Your task to perform on an android device: change the upload size in google photos Image 0: 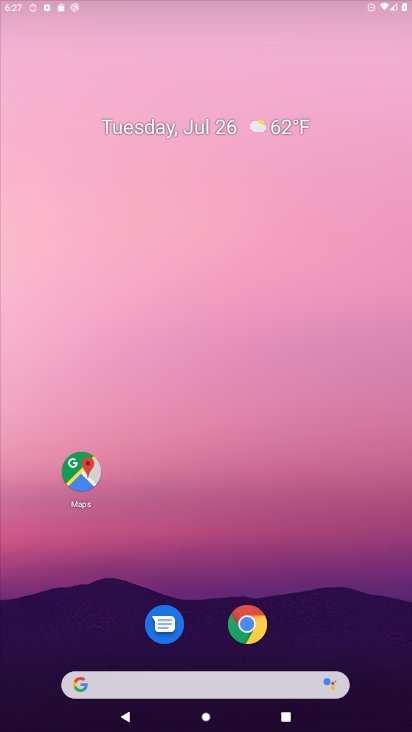
Step 0: press home button
Your task to perform on an android device: change the upload size in google photos Image 1: 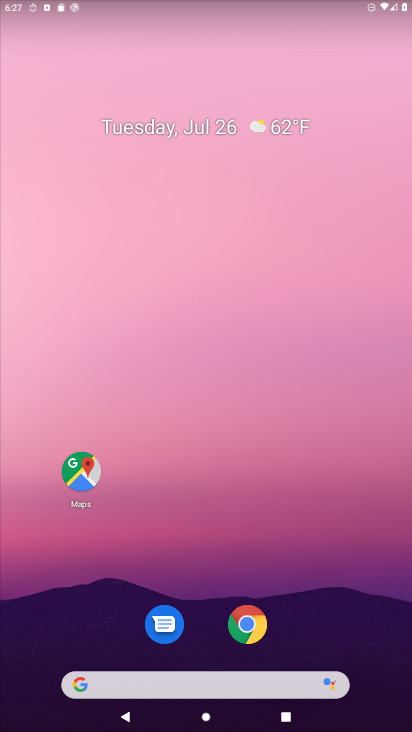
Step 1: drag from (291, 643) to (398, 610)
Your task to perform on an android device: change the upload size in google photos Image 2: 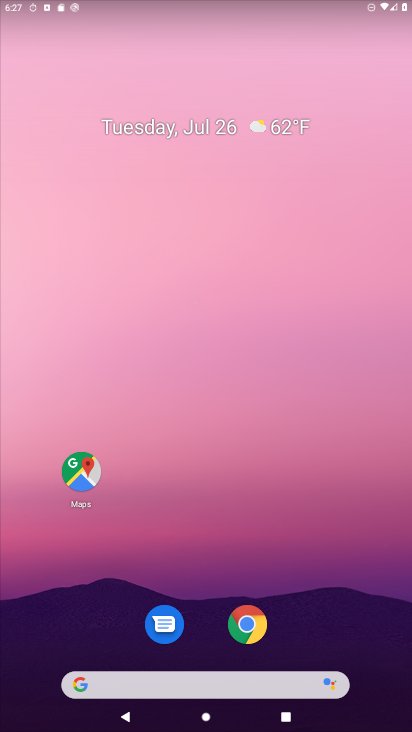
Step 2: drag from (258, 683) to (325, 87)
Your task to perform on an android device: change the upload size in google photos Image 3: 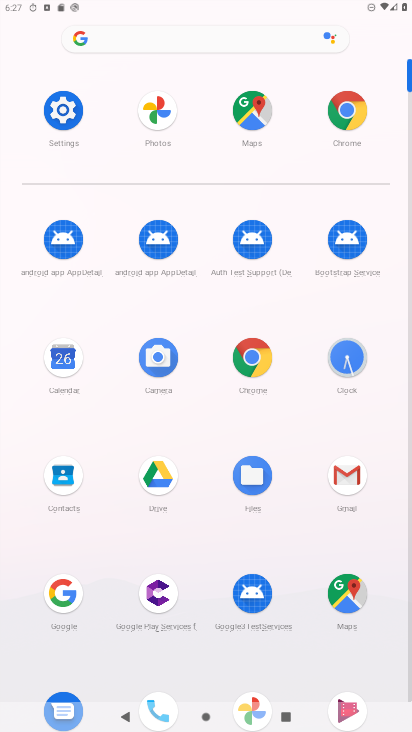
Step 3: drag from (247, 667) to (316, 311)
Your task to perform on an android device: change the upload size in google photos Image 4: 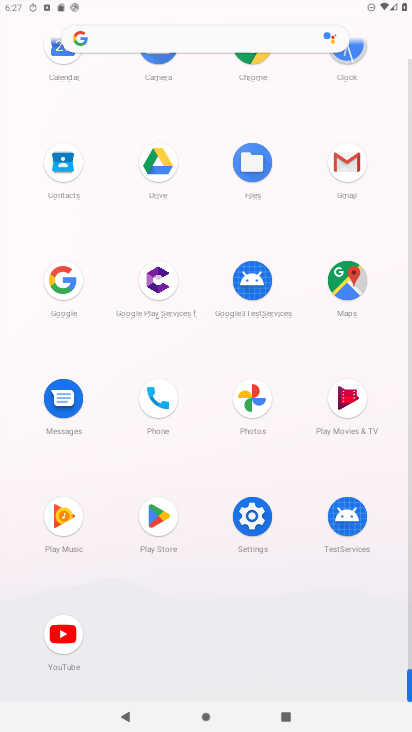
Step 4: click (259, 397)
Your task to perform on an android device: change the upload size in google photos Image 5: 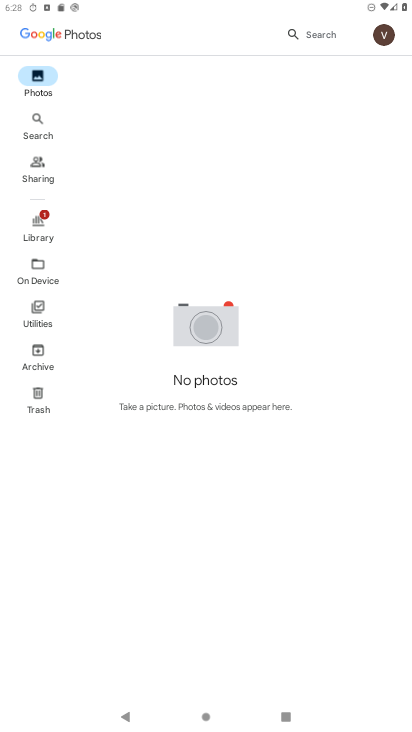
Step 5: click (385, 27)
Your task to perform on an android device: change the upload size in google photos Image 6: 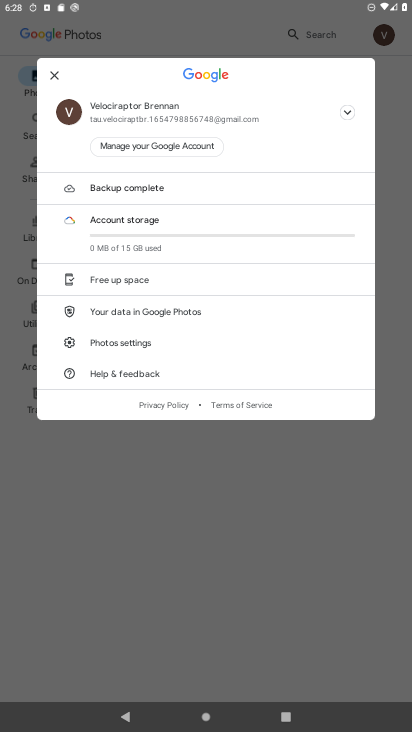
Step 6: click (139, 345)
Your task to perform on an android device: change the upload size in google photos Image 7: 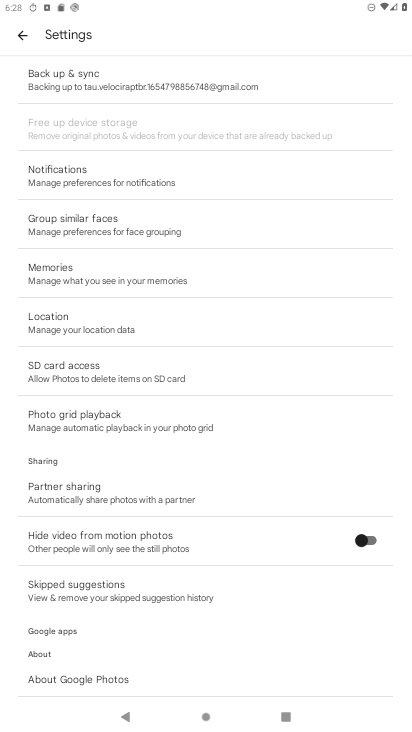
Step 7: click (168, 75)
Your task to perform on an android device: change the upload size in google photos Image 8: 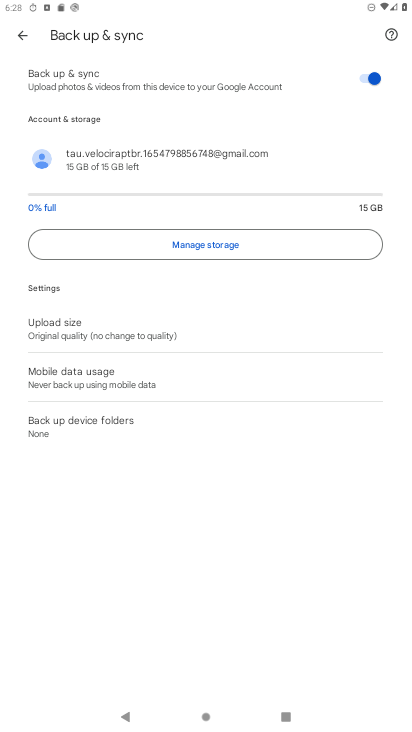
Step 8: click (106, 338)
Your task to perform on an android device: change the upload size in google photos Image 9: 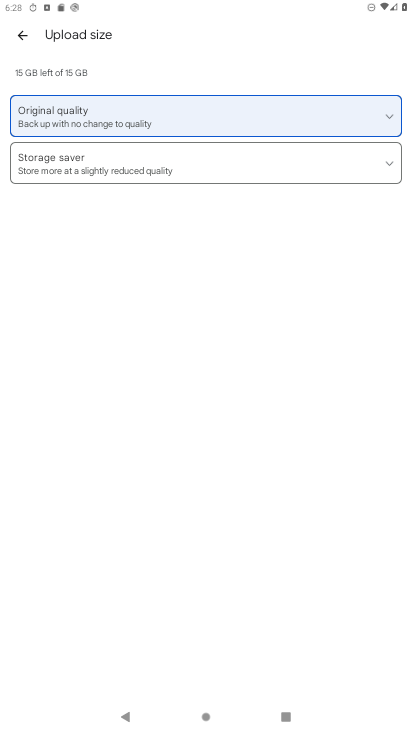
Step 9: click (121, 164)
Your task to perform on an android device: change the upload size in google photos Image 10: 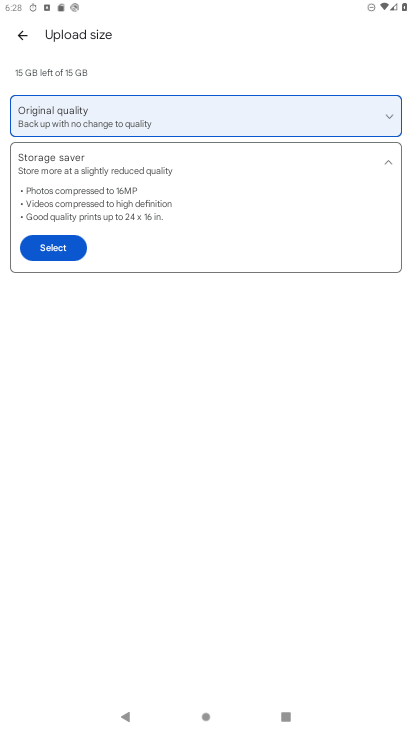
Step 10: click (53, 246)
Your task to perform on an android device: change the upload size in google photos Image 11: 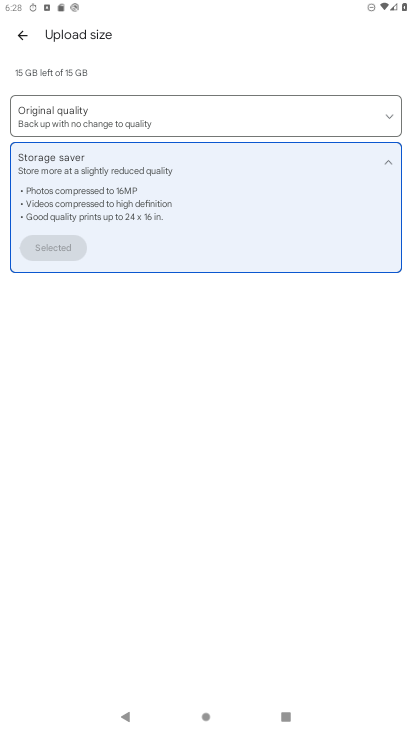
Step 11: task complete